Your task to perform on an android device: Do I have any events tomorrow? Image 0: 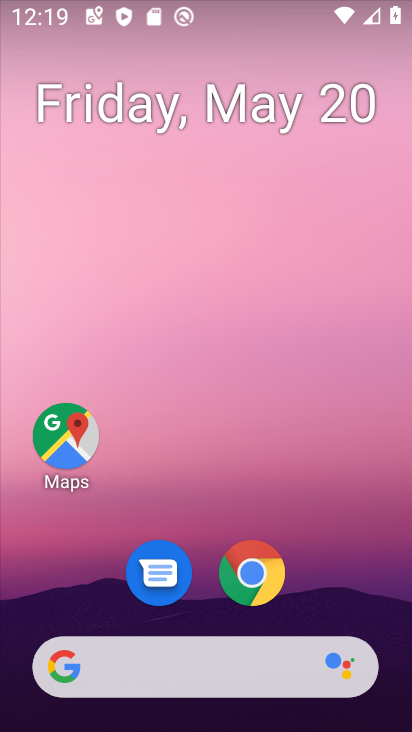
Step 0: drag from (320, 566) to (368, 127)
Your task to perform on an android device: Do I have any events tomorrow? Image 1: 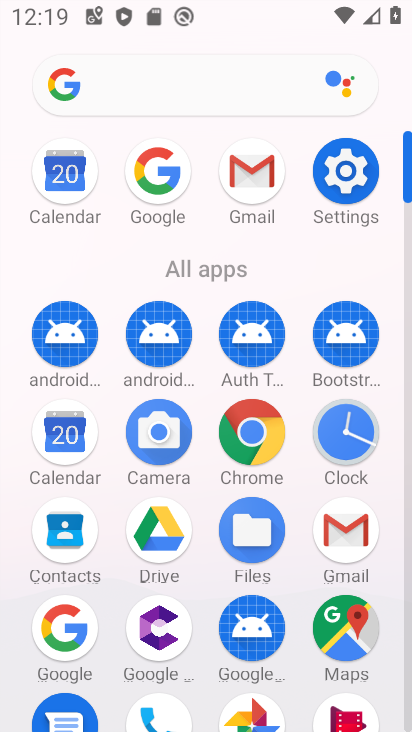
Step 1: click (69, 435)
Your task to perform on an android device: Do I have any events tomorrow? Image 2: 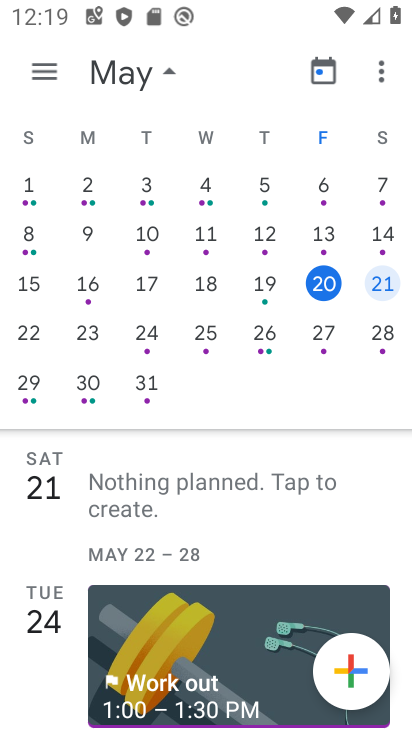
Step 2: click (386, 283)
Your task to perform on an android device: Do I have any events tomorrow? Image 3: 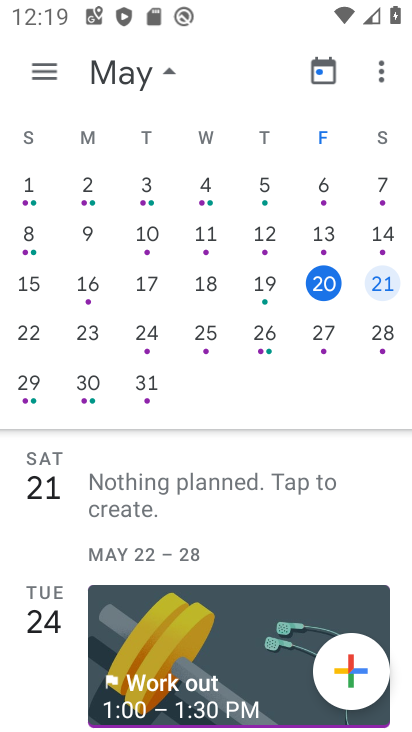
Step 3: task complete